Your task to perform on an android device: What is the news today? Image 0: 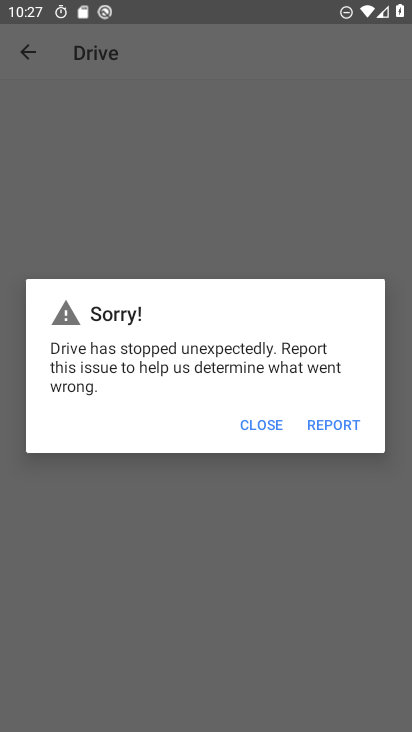
Step 0: press home button
Your task to perform on an android device: What is the news today? Image 1: 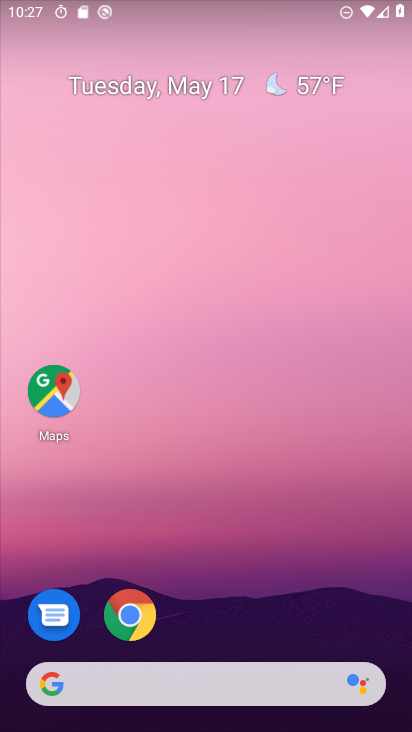
Step 1: drag from (271, 461) to (221, 29)
Your task to perform on an android device: What is the news today? Image 2: 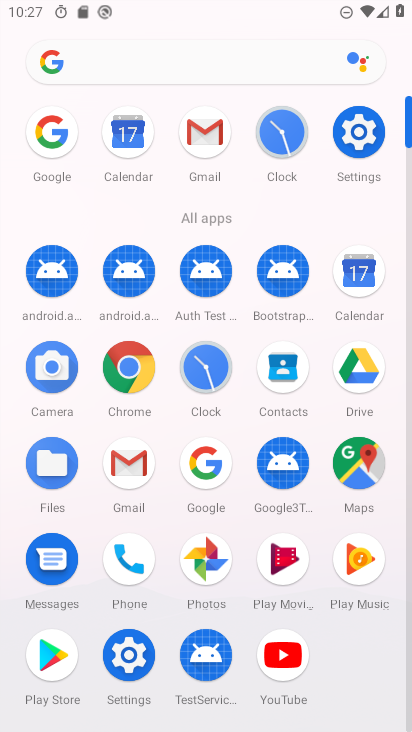
Step 2: click (209, 468)
Your task to perform on an android device: What is the news today? Image 3: 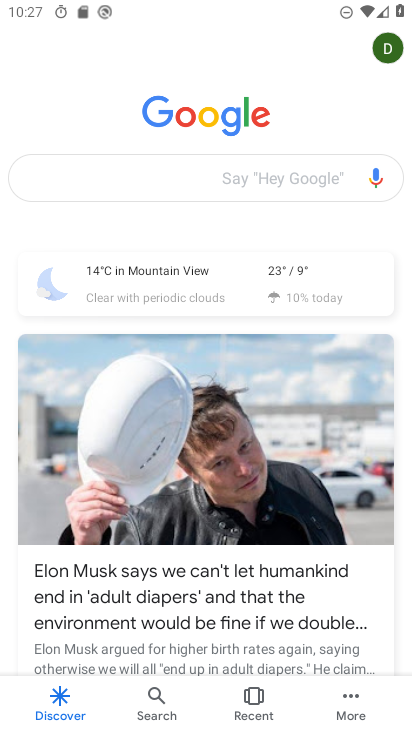
Step 3: click (197, 179)
Your task to perform on an android device: What is the news today? Image 4: 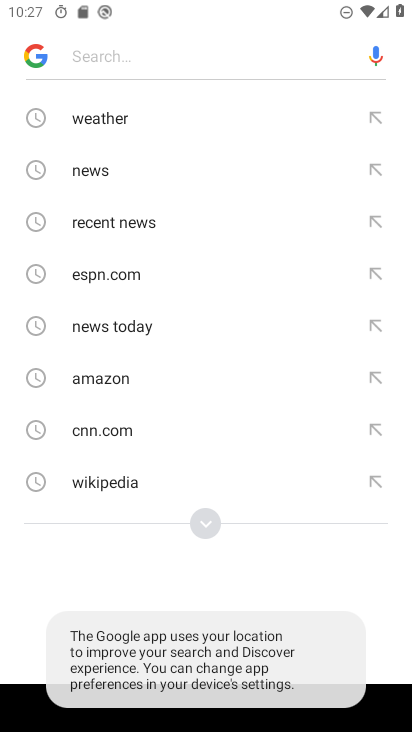
Step 4: click (155, 319)
Your task to perform on an android device: What is the news today? Image 5: 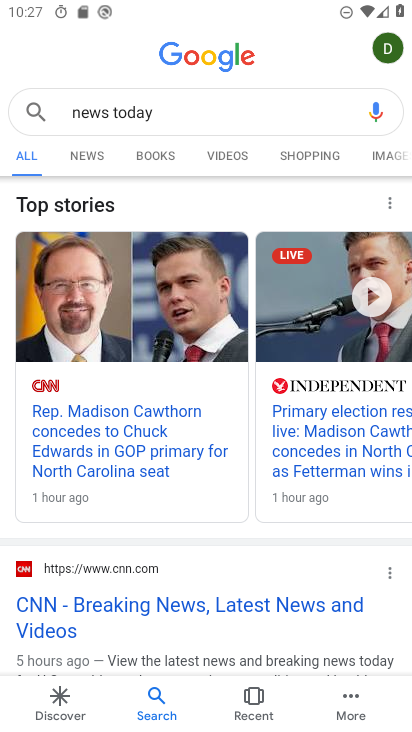
Step 5: task complete